Your task to perform on an android device: Search for hotels in Atlanta Image 0: 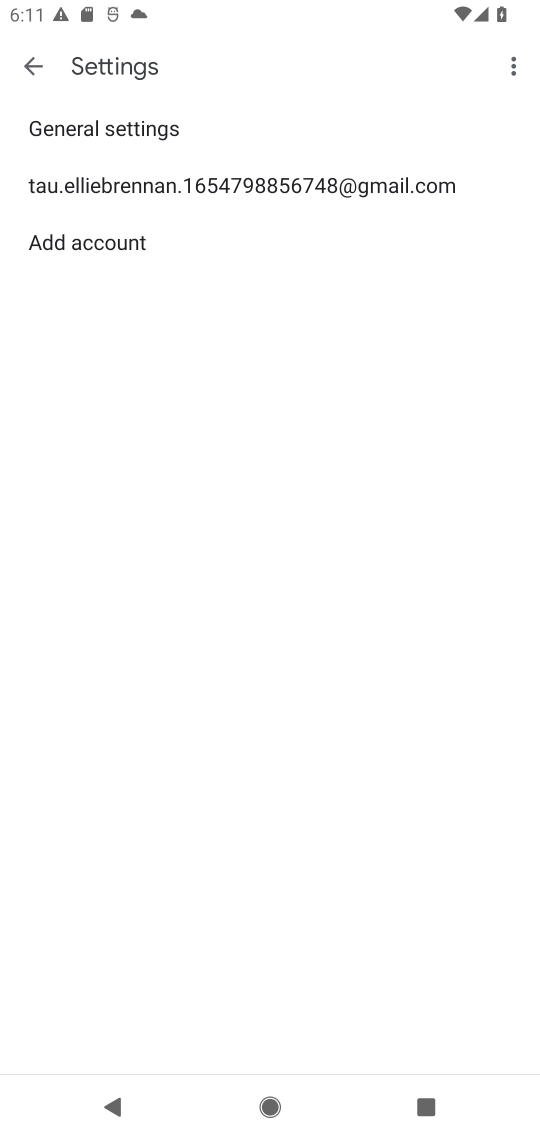
Step 0: press home button
Your task to perform on an android device: Search for hotels in Atlanta Image 1: 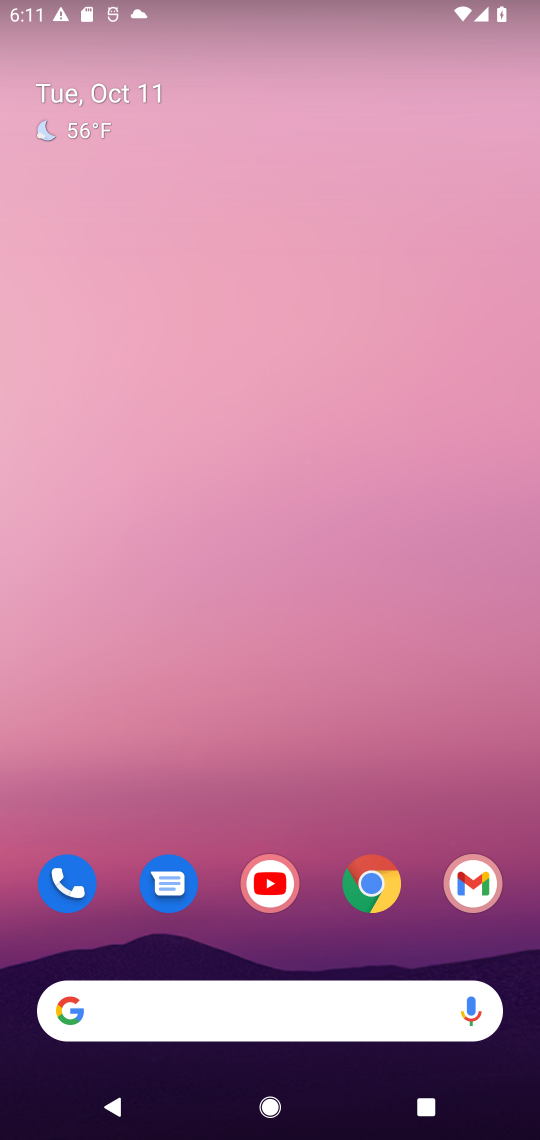
Step 1: drag from (333, 840) to (349, 116)
Your task to perform on an android device: Search for hotels in Atlanta Image 2: 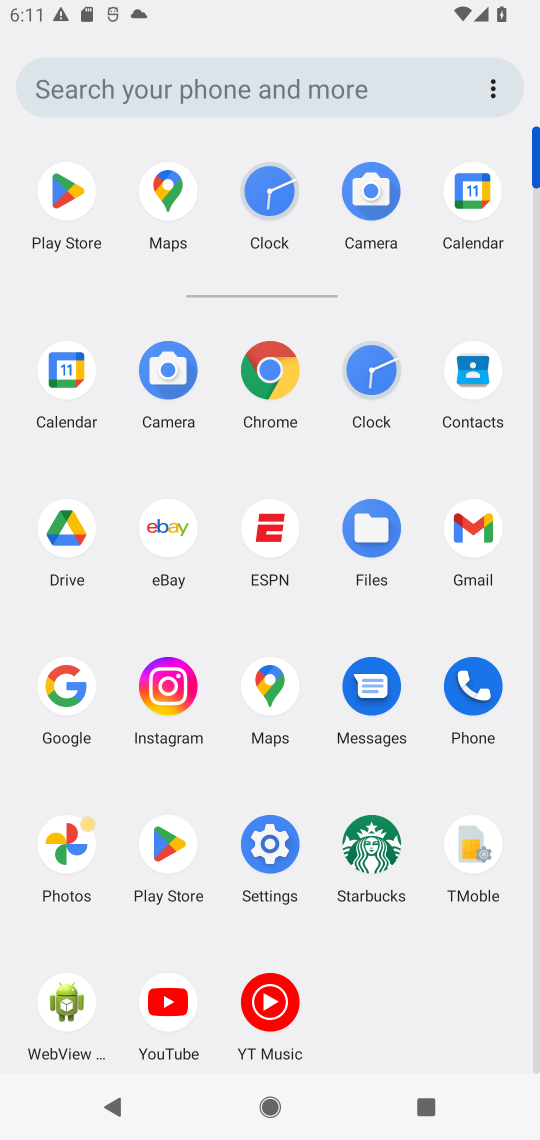
Step 2: click (269, 371)
Your task to perform on an android device: Search for hotels in Atlanta Image 3: 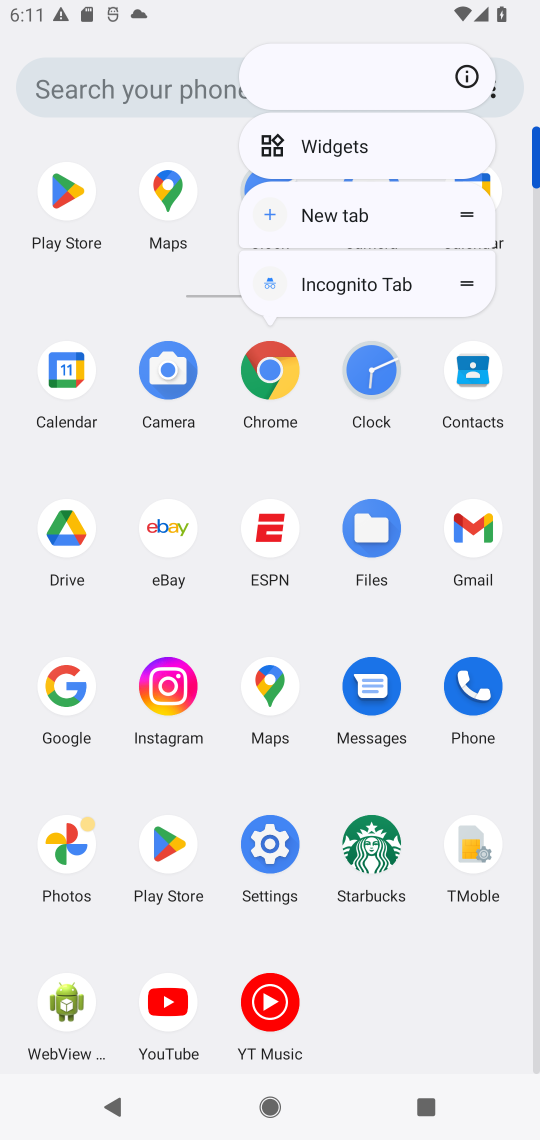
Step 3: click (263, 368)
Your task to perform on an android device: Search for hotels in Atlanta Image 4: 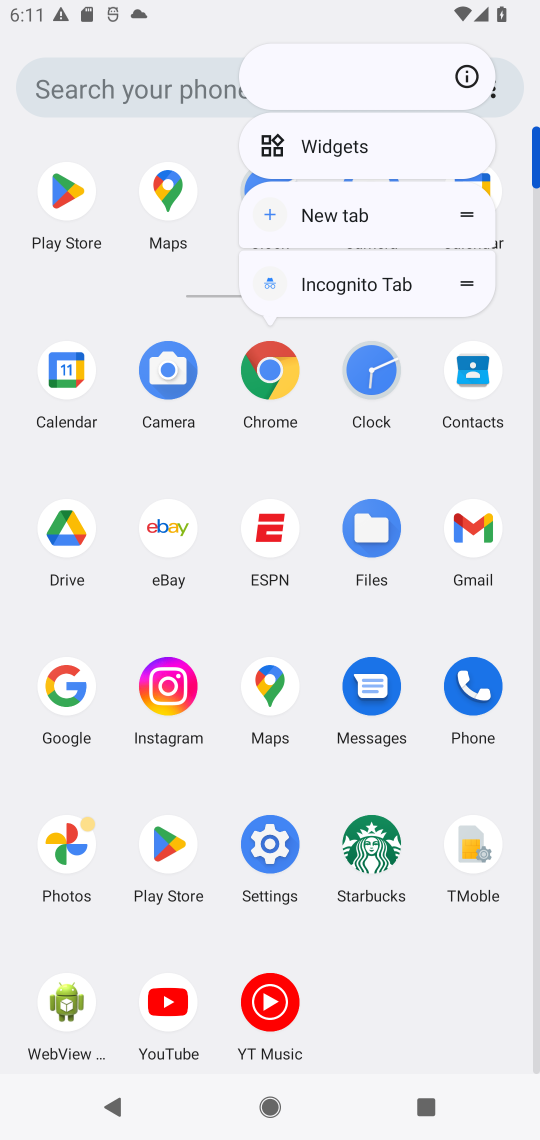
Step 4: click (270, 364)
Your task to perform on an android device: Search for hotels in Atlanta Image 5: 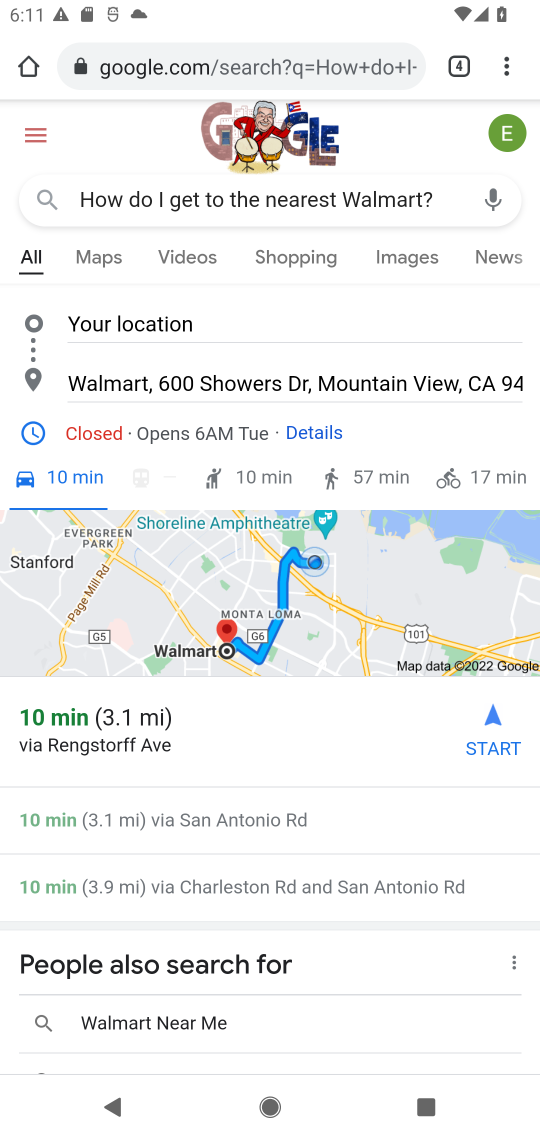
Step 5: click (239, 45)
Your task to perform on an android device: Search for hotels in Atlanta Image 6: 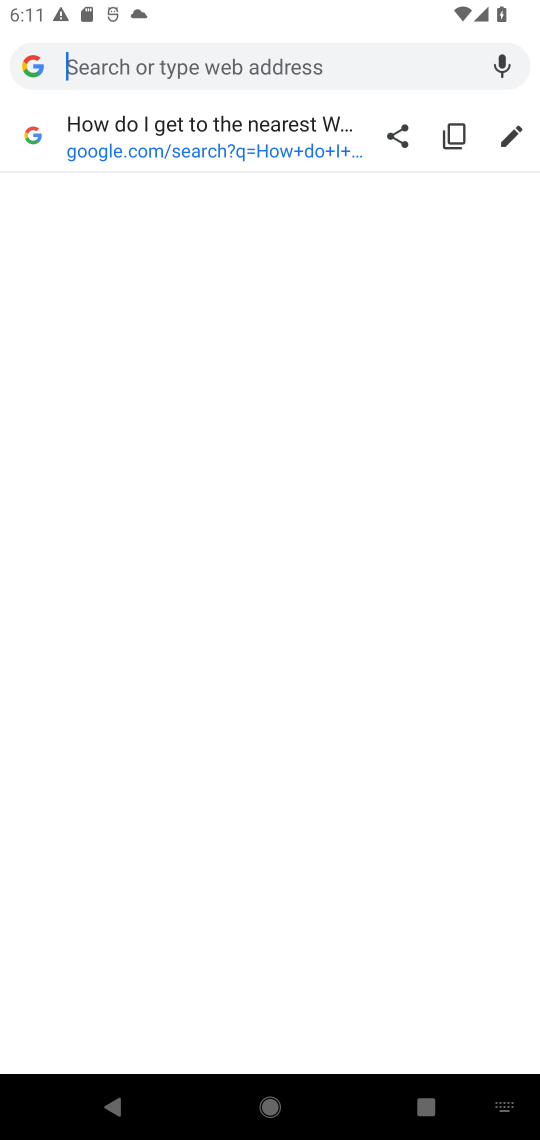
Step 6: type "hotels in Atlant"
Your task to perform on an android device: Search for hotels in Atlanta Image 7: 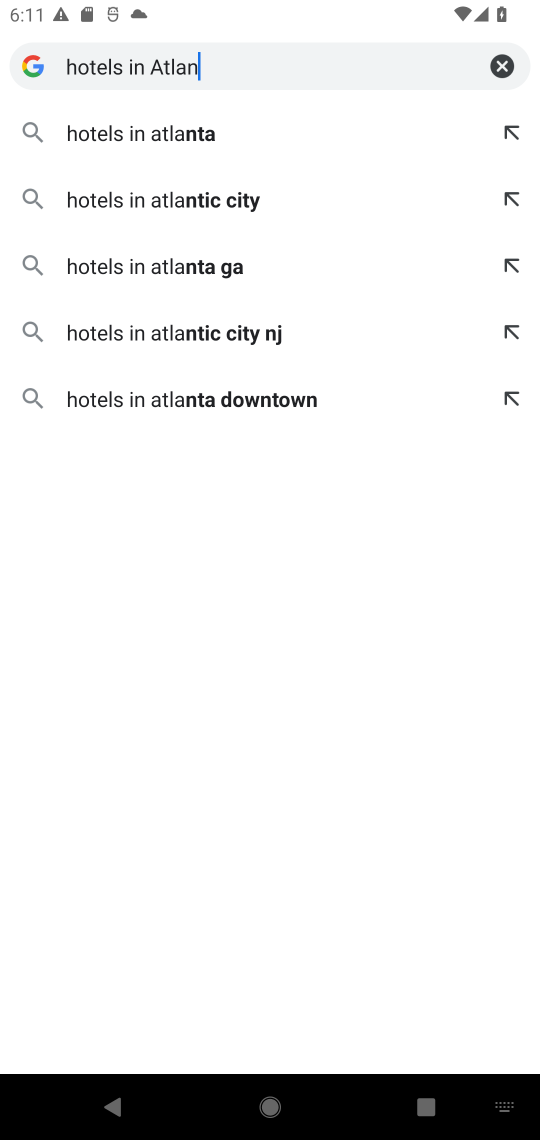
Step 7: press enter
Your task to perform on an android device: Search for hotels in Atlanta Image 8: 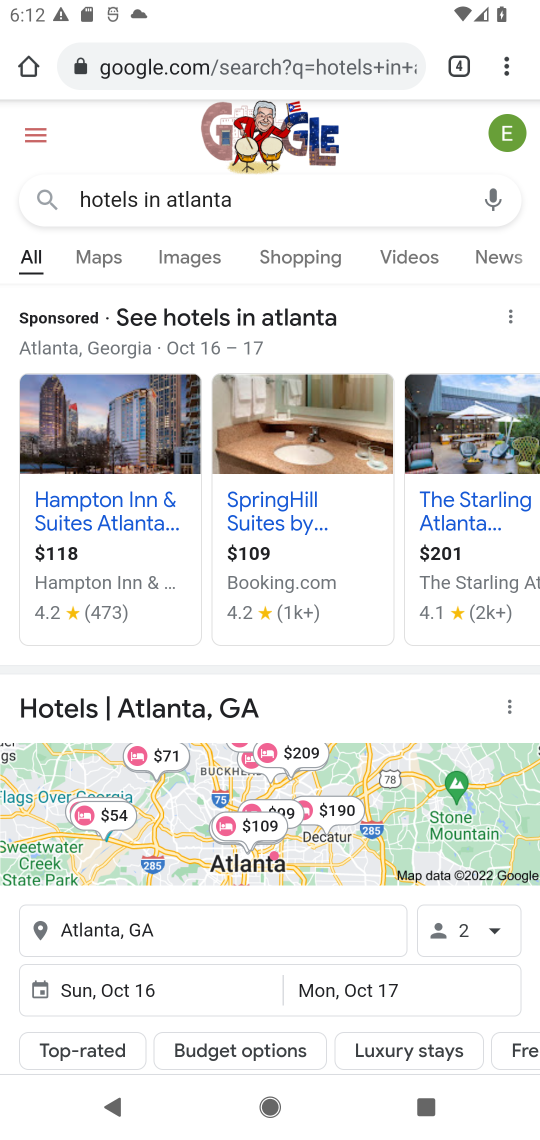
Step 8: task complete